Your task to perform on an android device: Do I have any events today? Image 0: 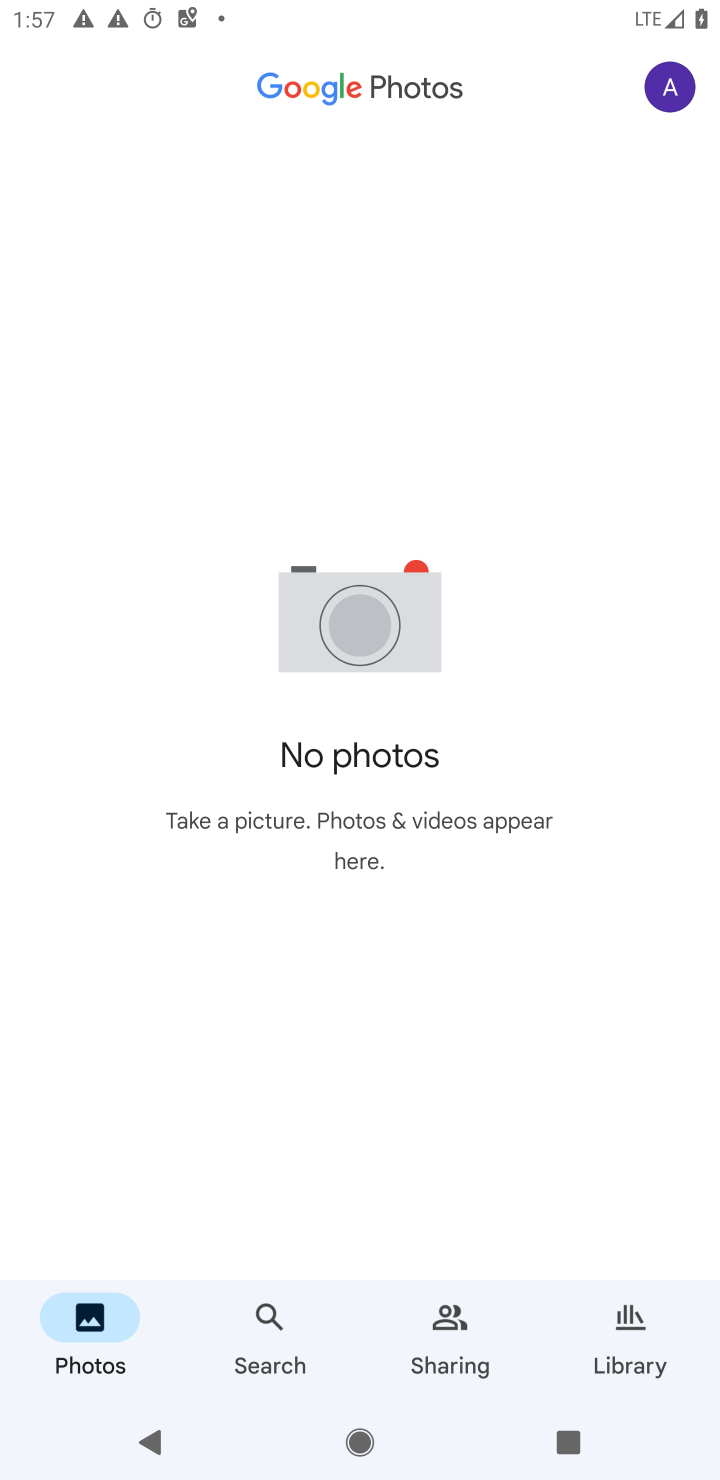
Step 0: press home button
Your task to perform on an android device: Do I have any events today? Image 1: 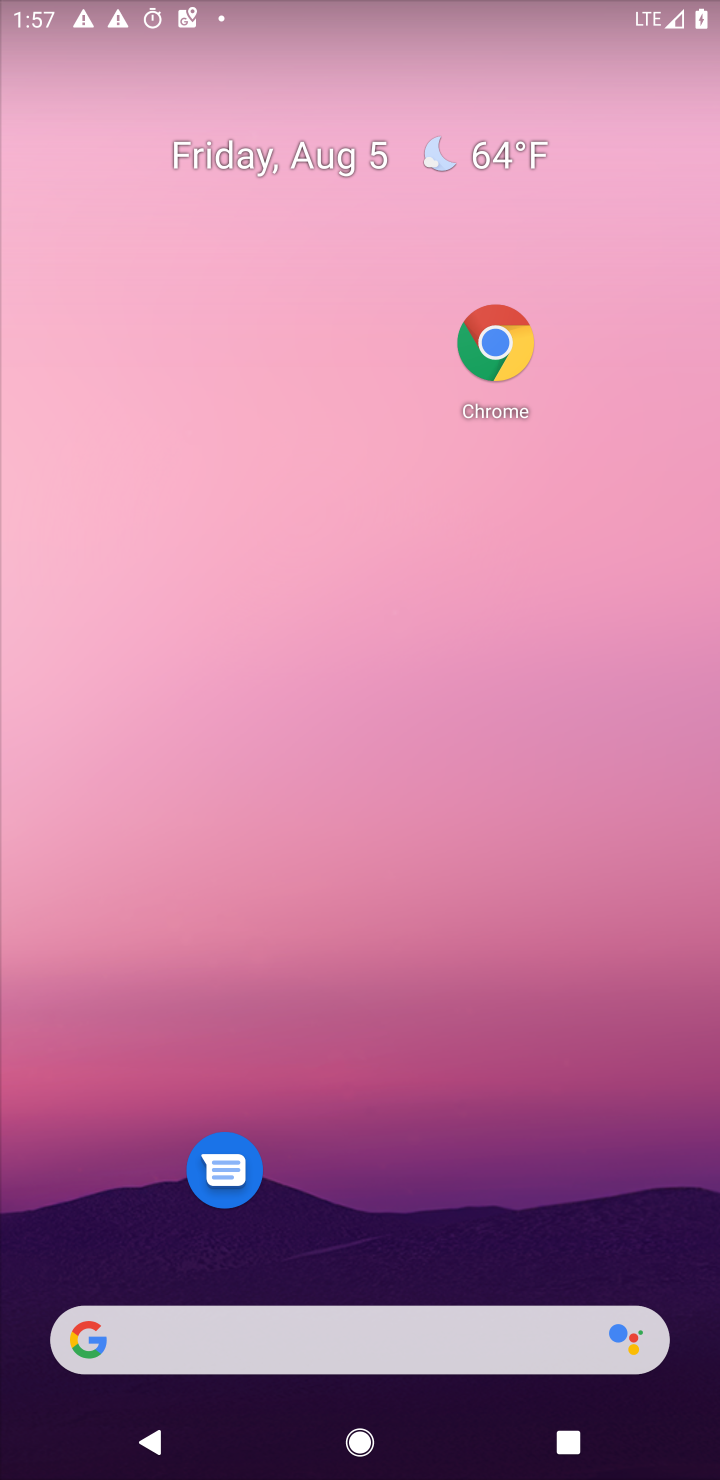
Step 1: drag from (393, 1215) to (283, 95)
Your task to perform on an android device: Do I have any events today? Image 2: 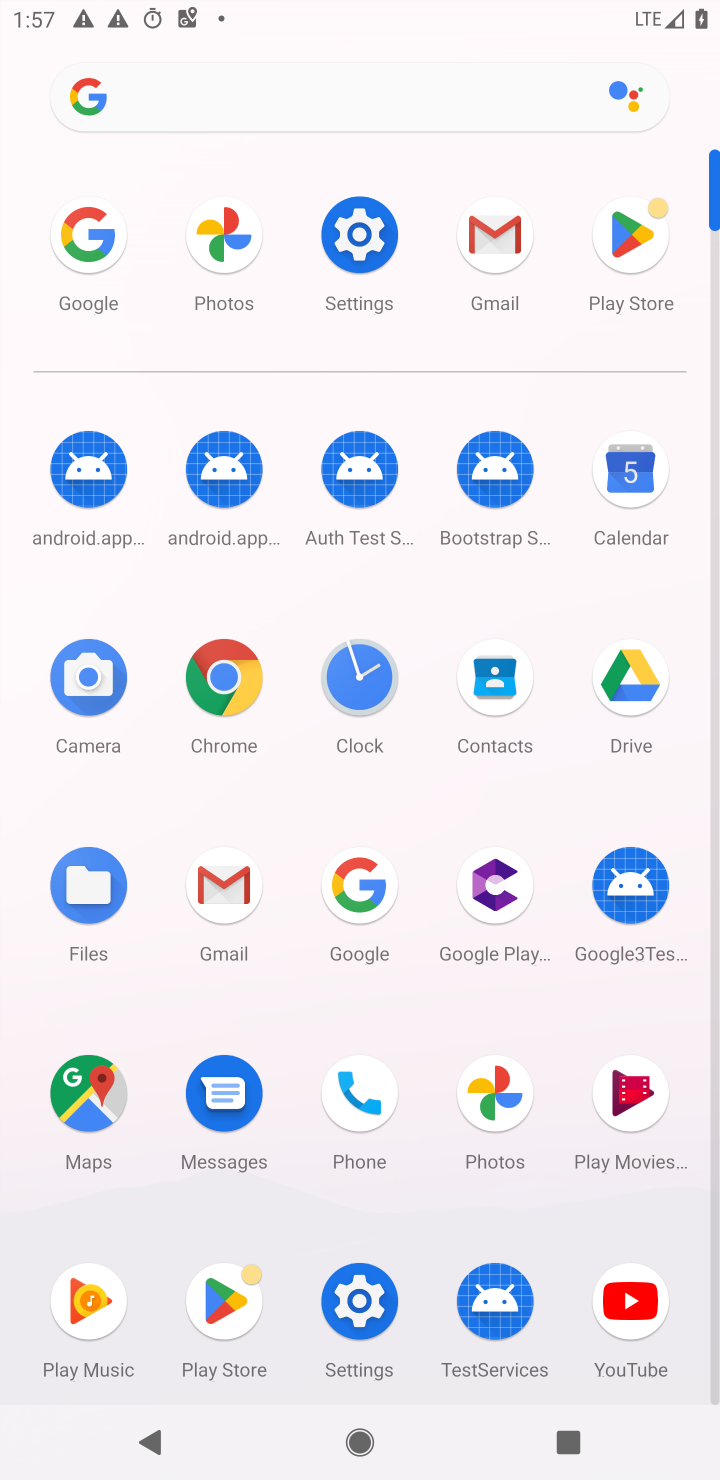
Step 2: click (637, 512)
Your task to perform on an android device: Do I have any events today? Image 3: 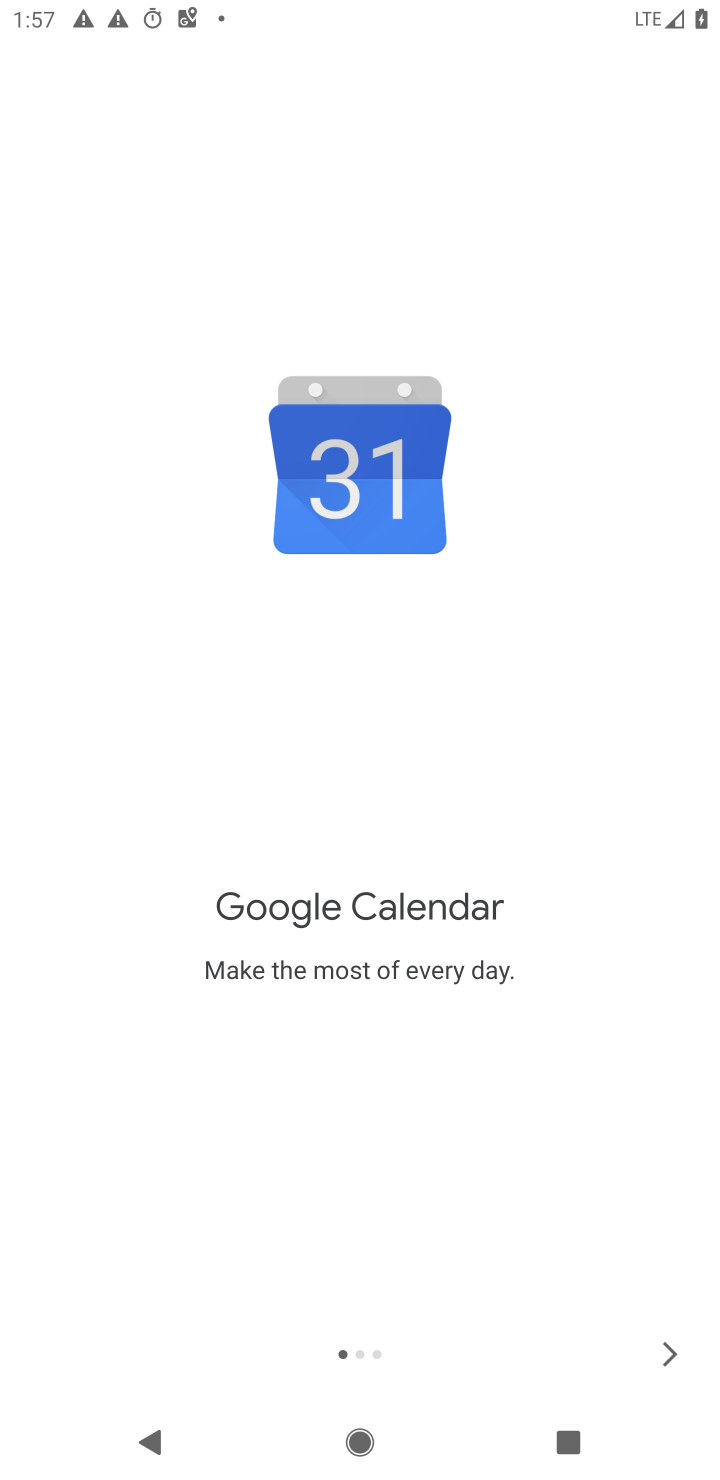
Step 3: click (672, 1350)
Your task to perform on an android device: Do I have any events today? Image 4: 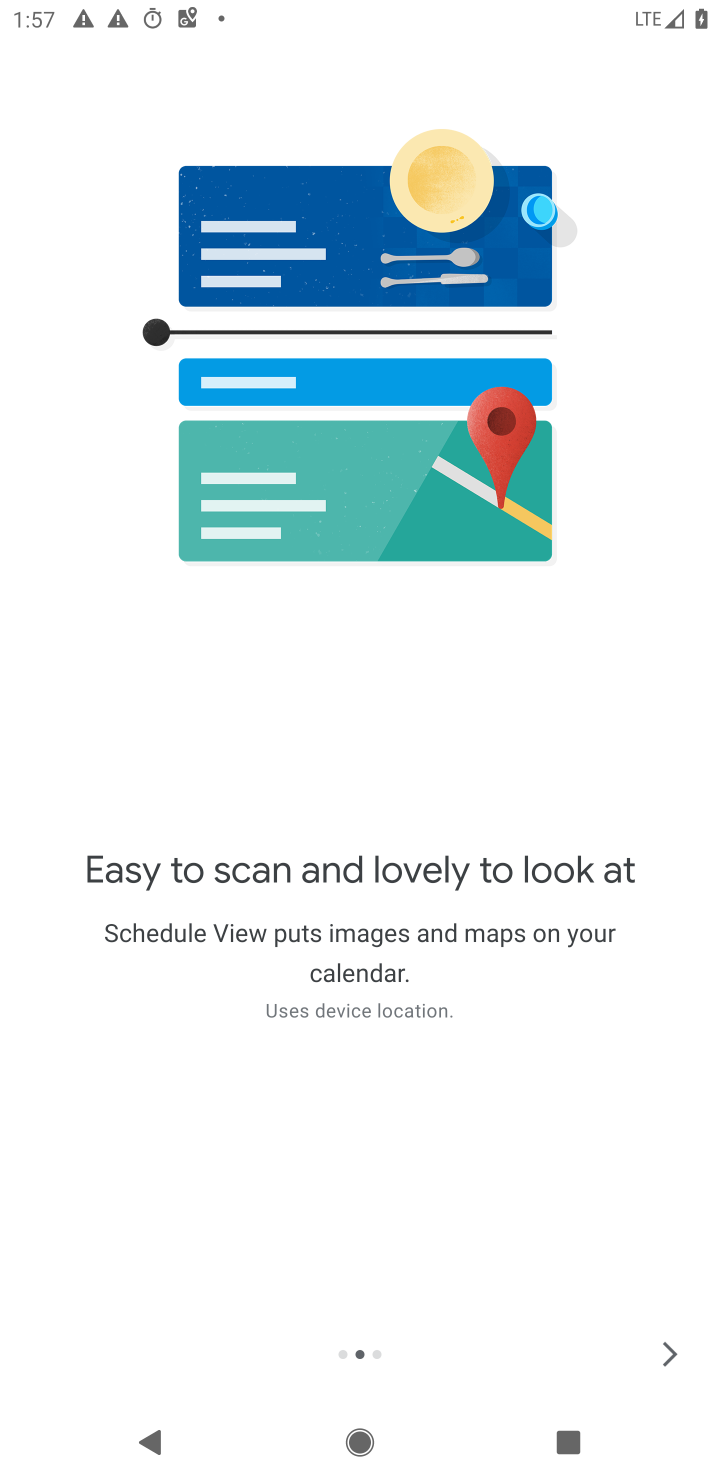
Step 4: click (670, 1350)
Your task to perform on an android device: Do I have any events today? Image 5: 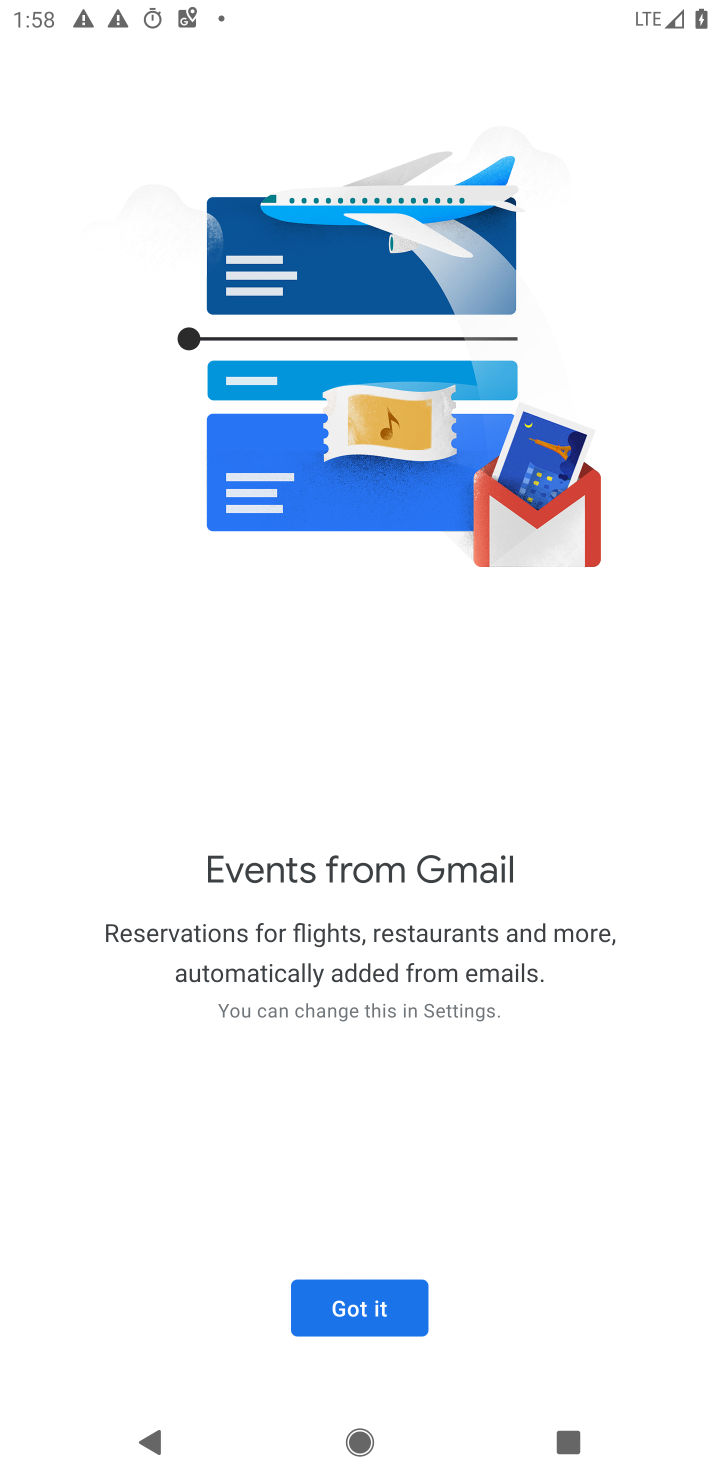
Step 5: click (378, 1310)
Your task to perform on an android device: Do I have any events today? Image 6: 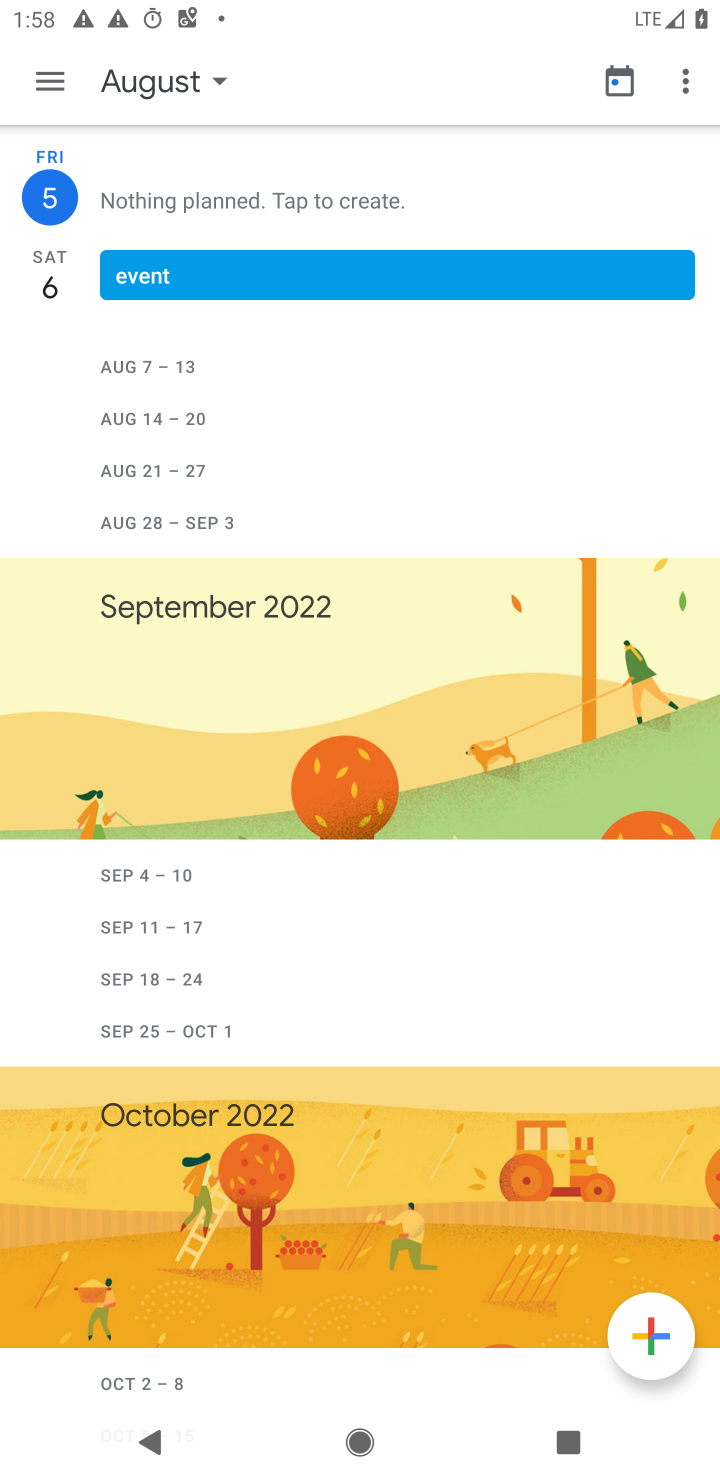
Step 6: click (27, 84)
Your task to perform on an android device: Do I have any events today? Image 7: 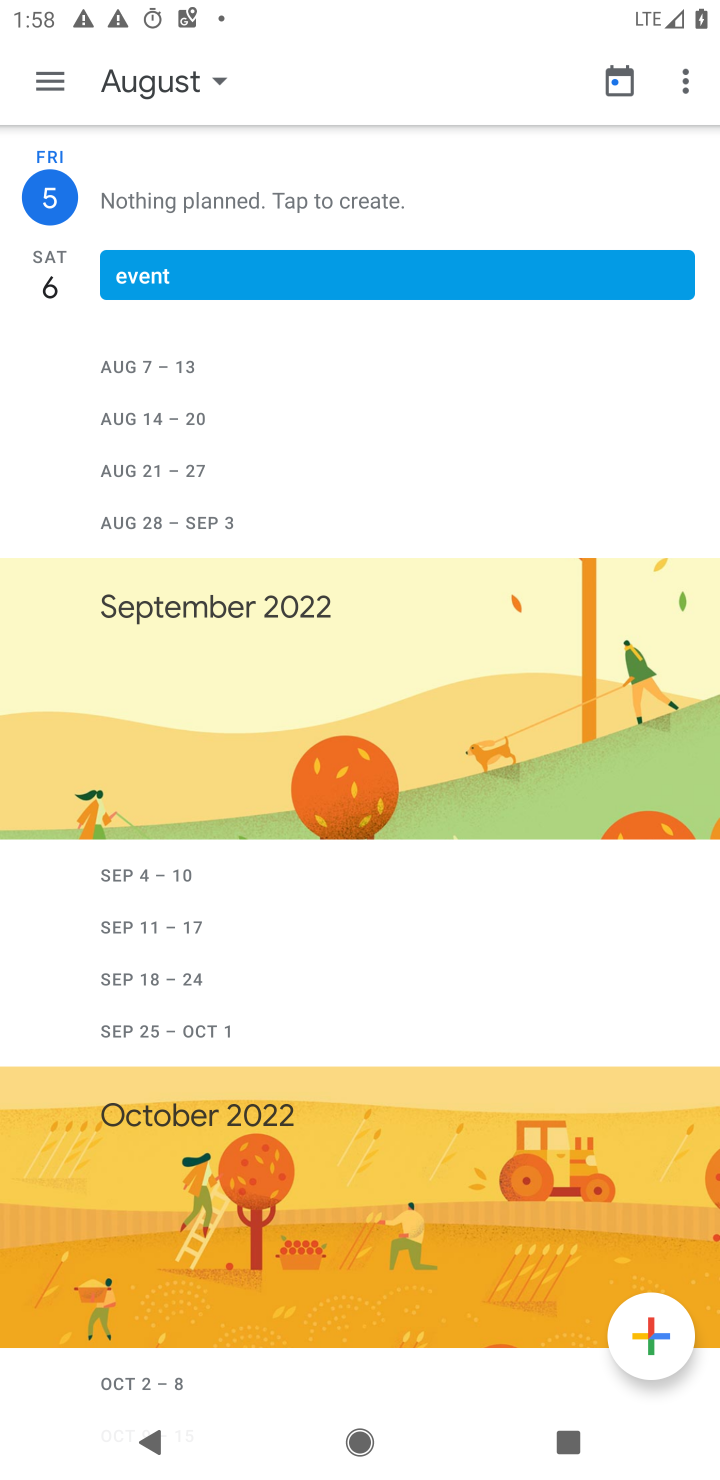
Step 7: click (50, 93)
Your task to perform on an android device: Do I have any events today? Image 8: 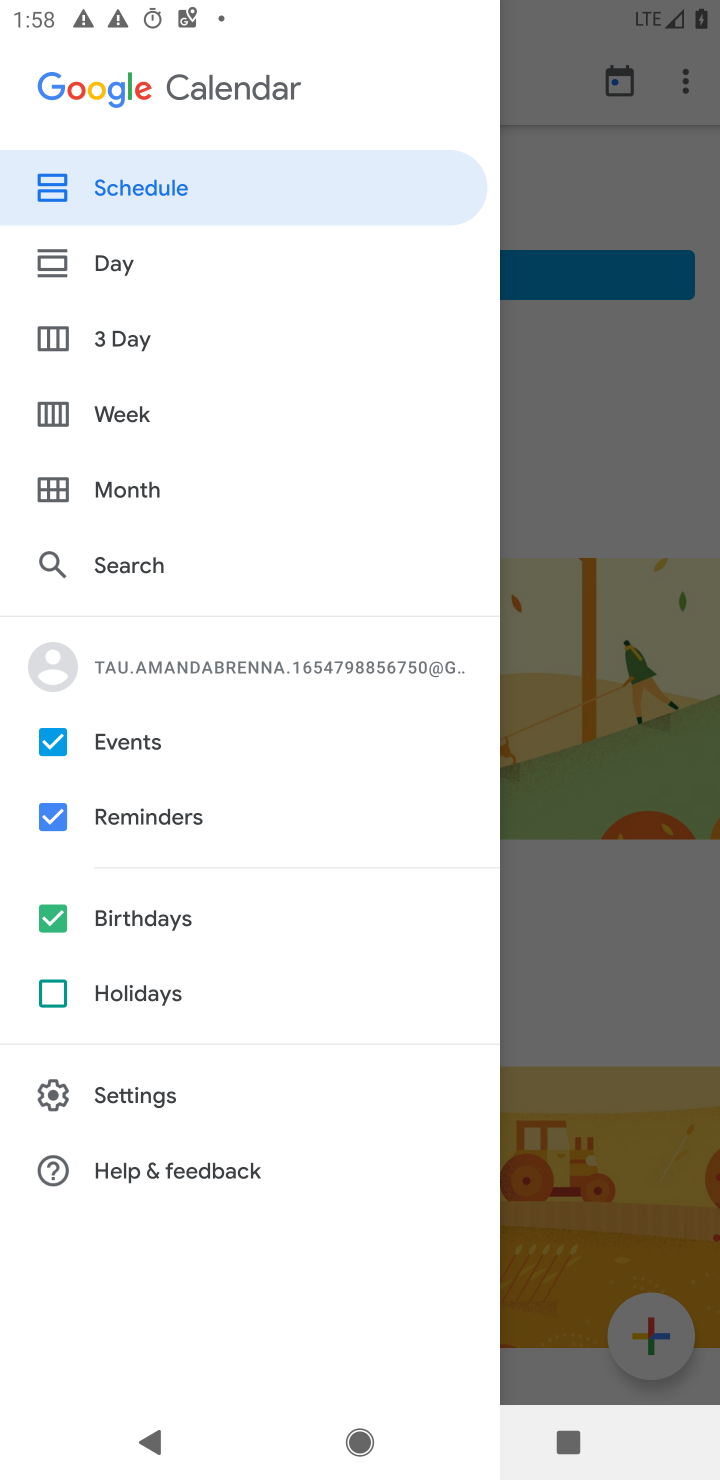
Step 8: click (134, 274)
Your task to perform on an android device: Do I have any events today? Image 9: 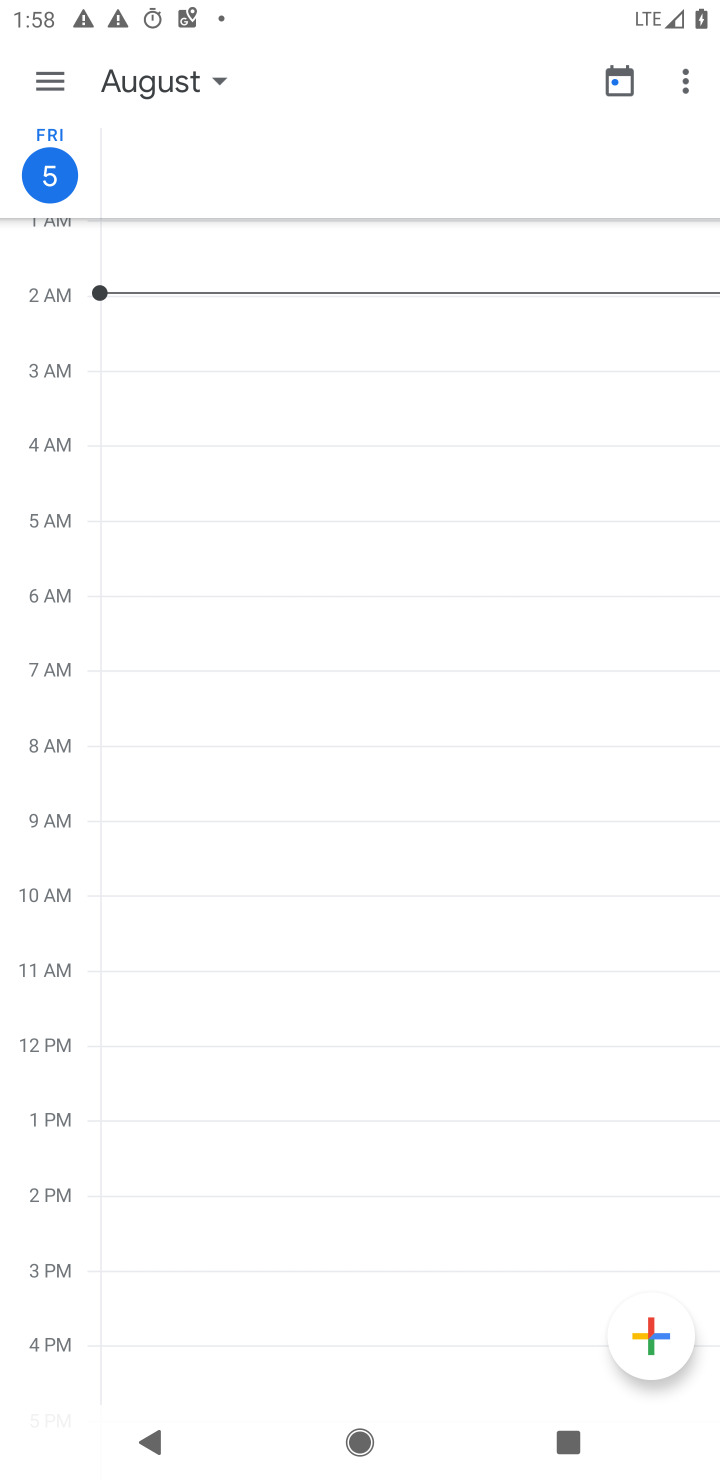
Step 9: task complete